Your task to perform on an android device: When is my next meeting? Image 0: 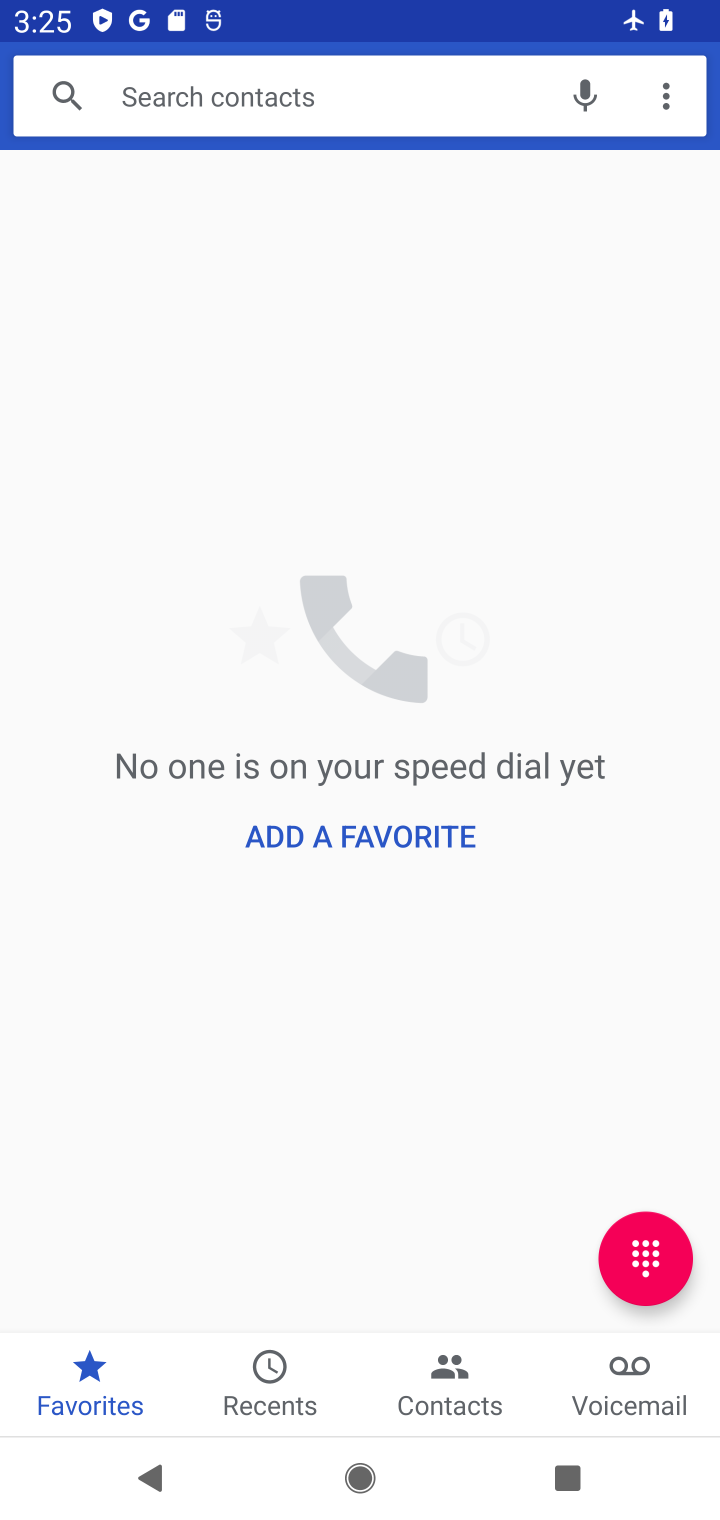
Step 0: press home button
Your task to perform on an android device: When is my next meeting? Image 1: 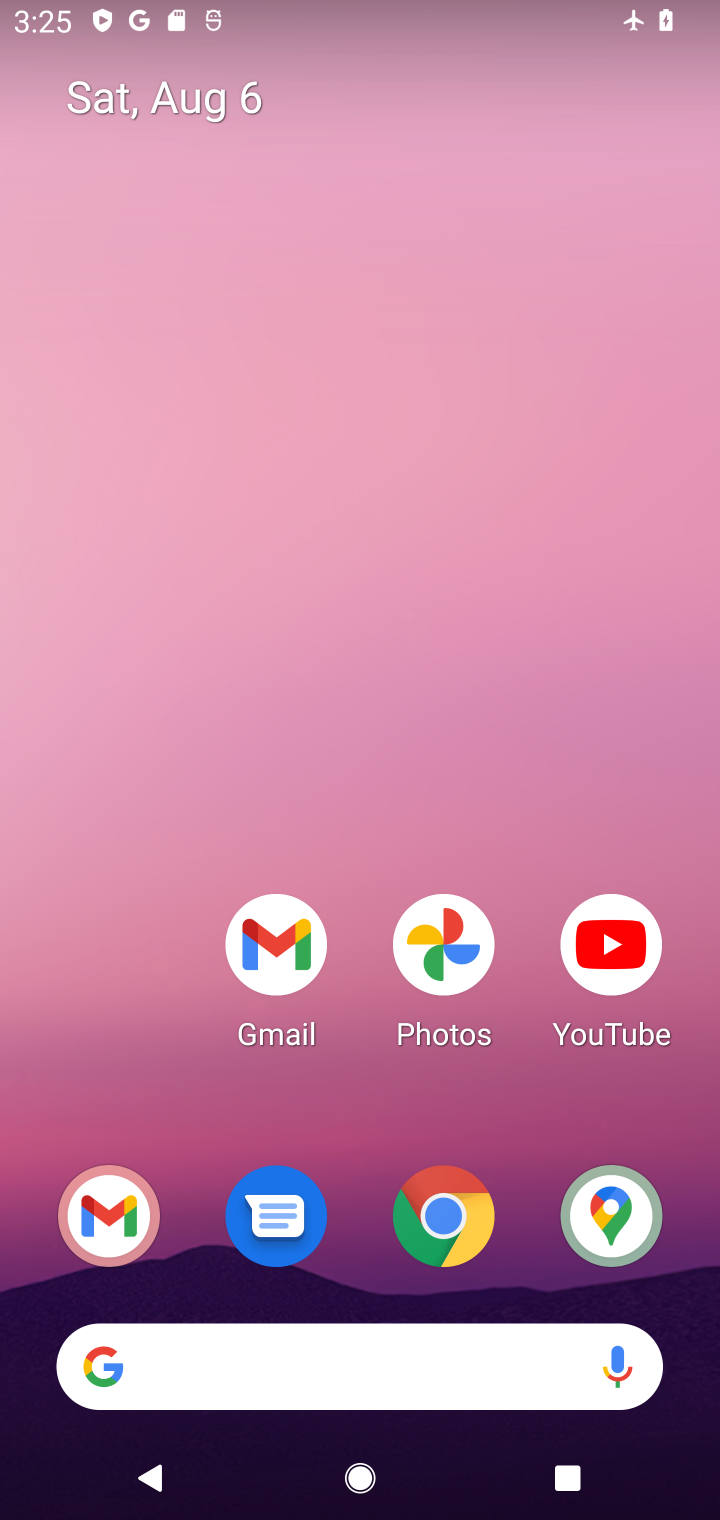
Step 1: press home button
Your task to perform on an android device: When is my next meeting? Image 2: 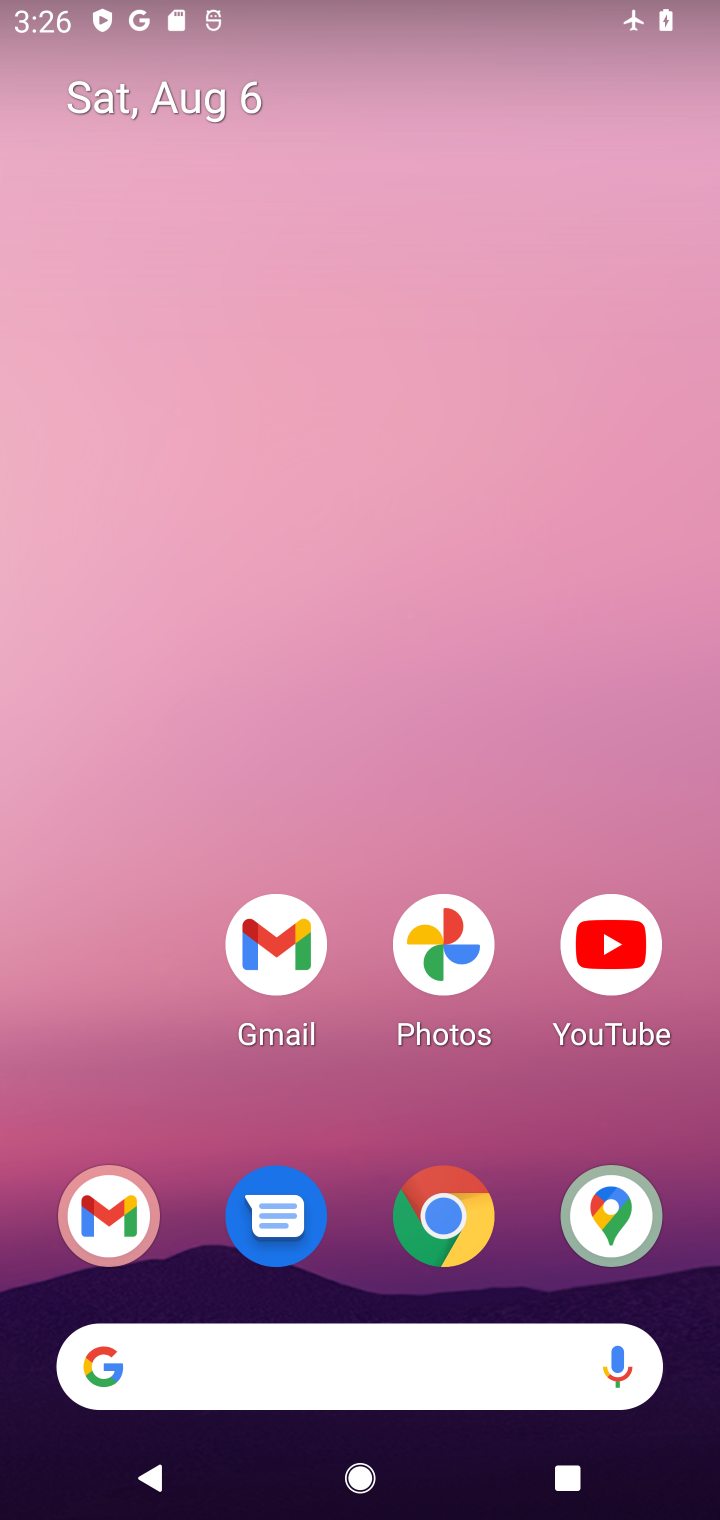
Step 2: drag from (366, 1184) to (379, 640)
Your task to perform on an android device: When is my next meeting? Image 3: 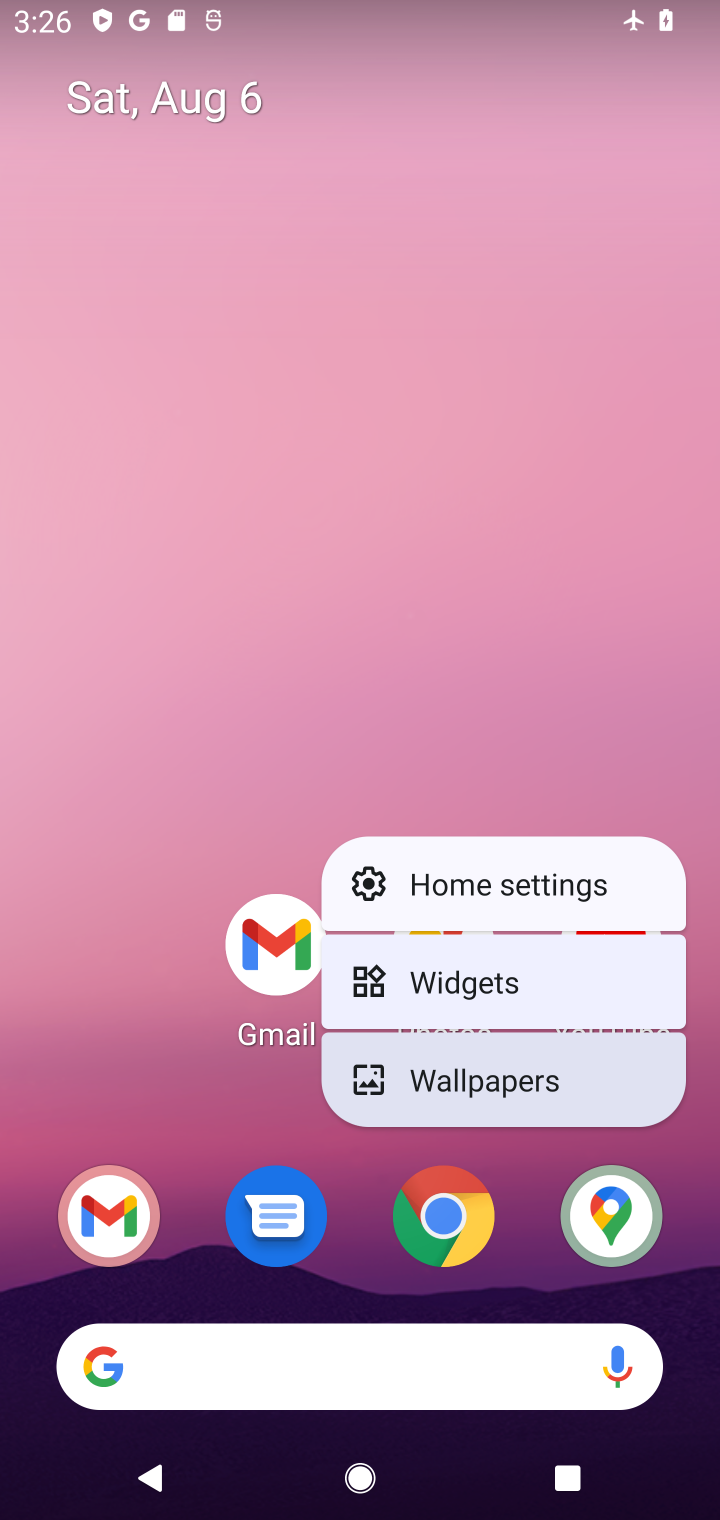
Step 3: drag from (190, 1299) to (341, 290)
Your task to perform on an android device: When is my next meeting? Image 4: 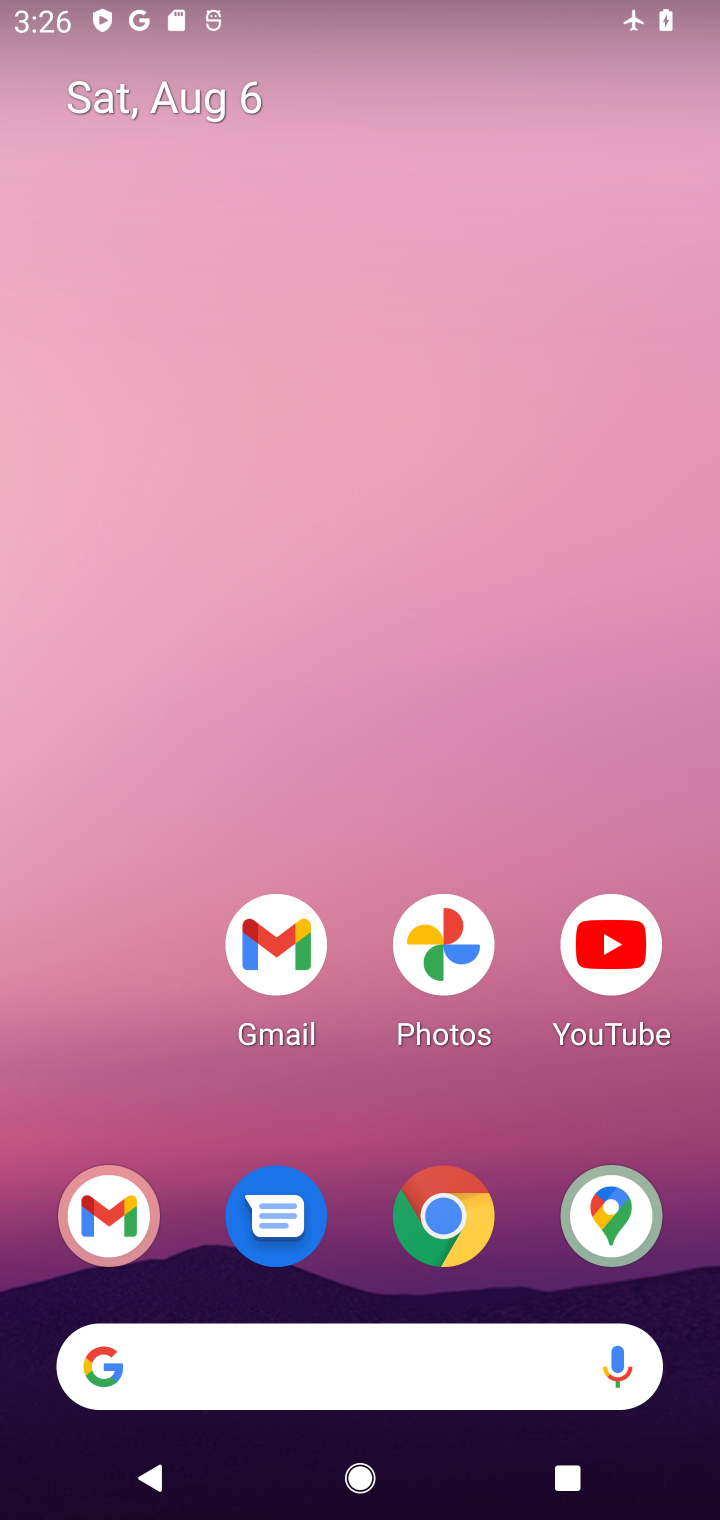
Step 4: drag from (388, 1289) to (380, 534)
Your task to perform on an android device: When is my next meeting? Image 5: 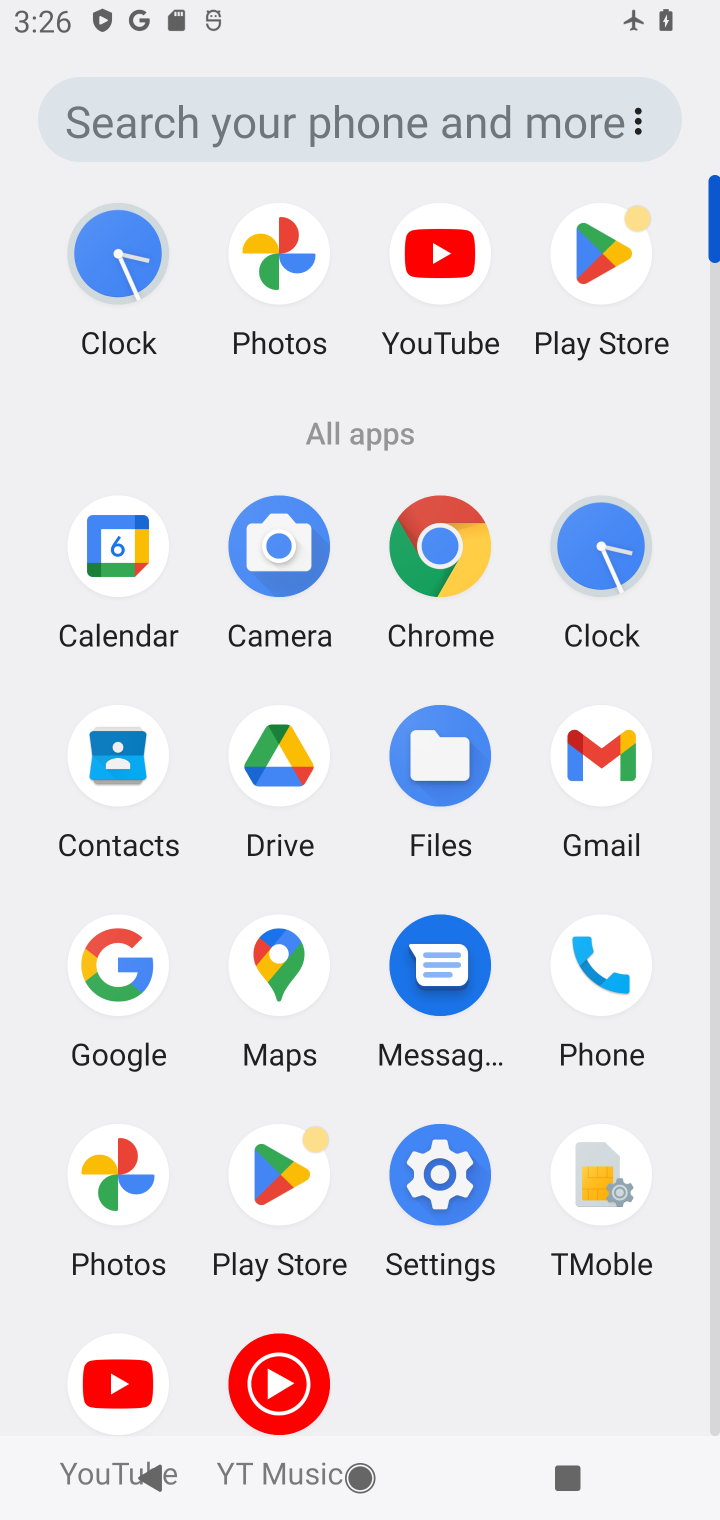
Step 5: click (139, 605)
Your task to perform on an android device: When is my next meeting? Image 6: 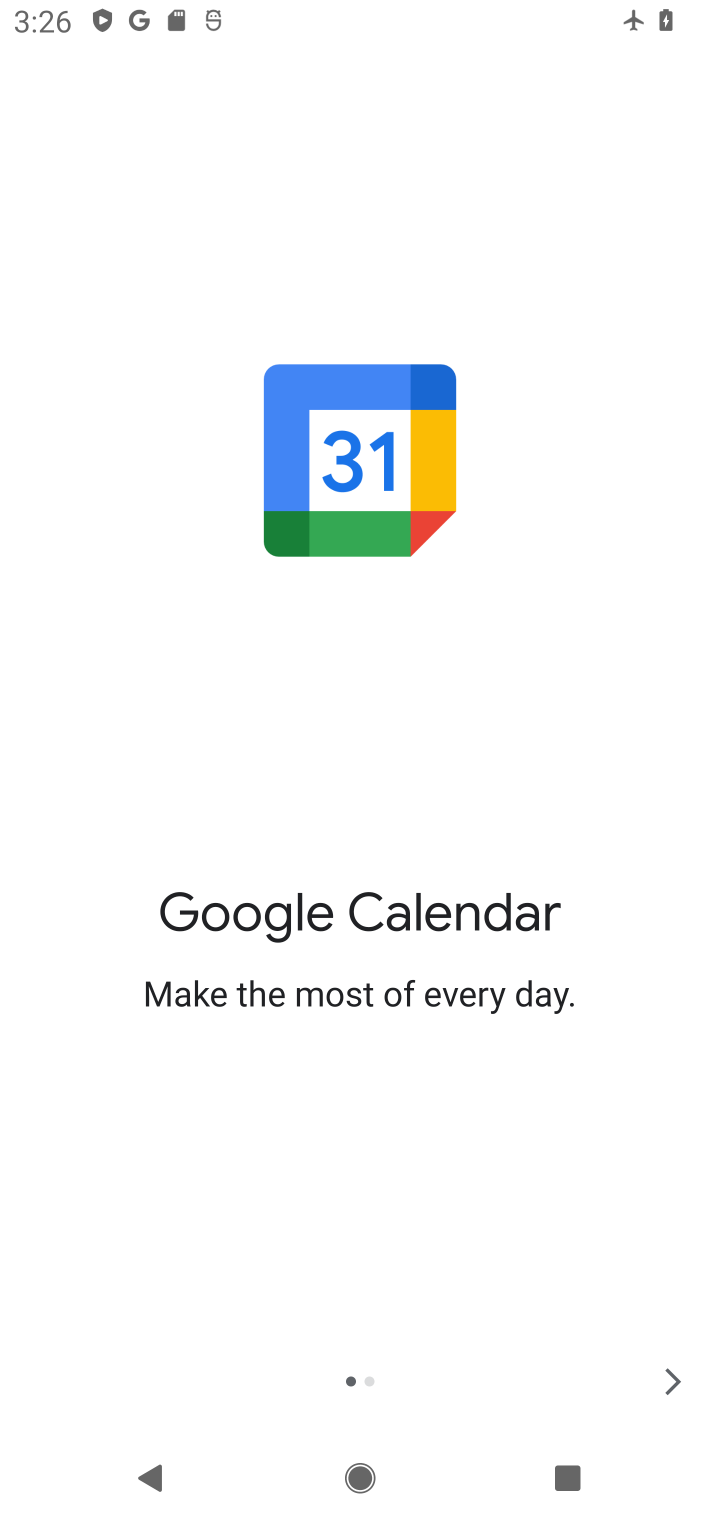
Step 6: click (666, 1401)
Your task to perform on an android device: When is my next meeting? Image 7: 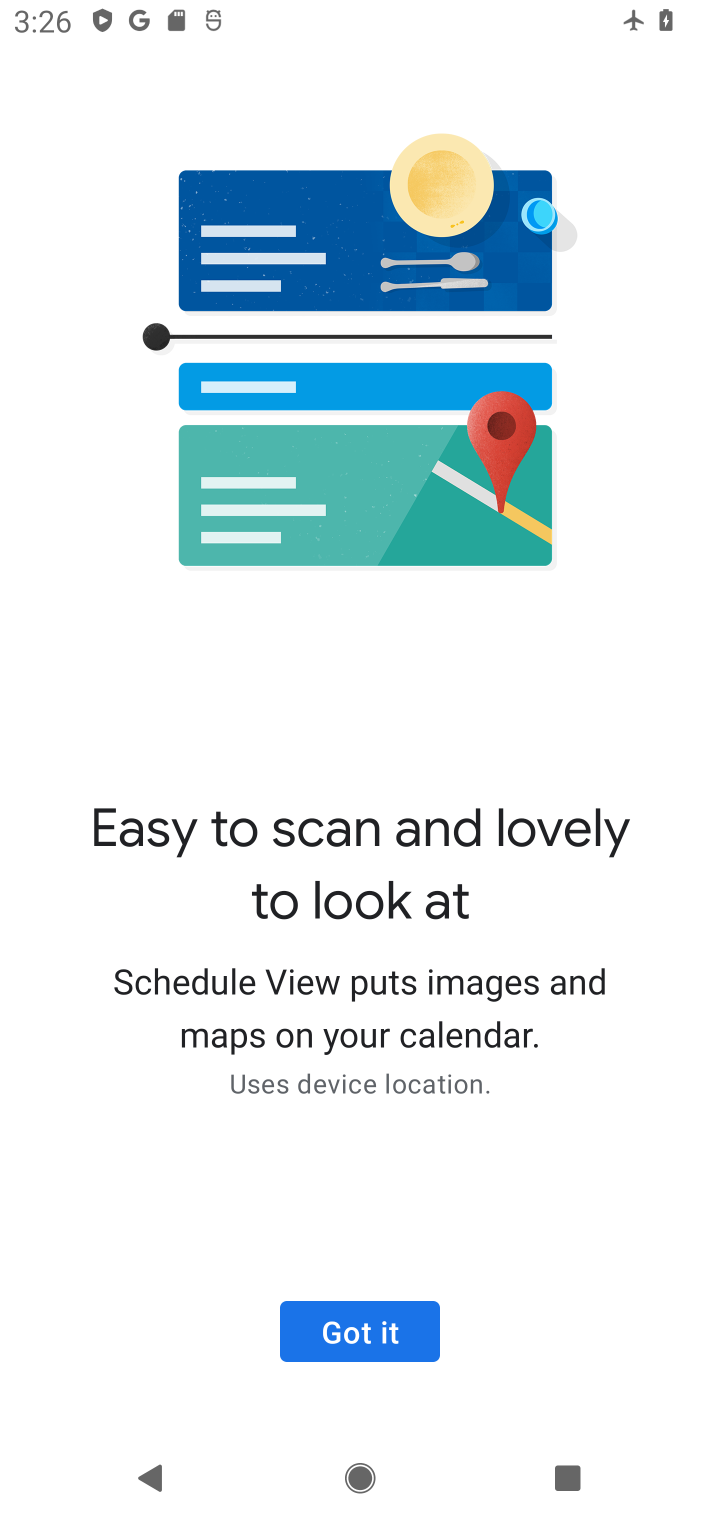
Step 7: click (666, 1401)
Your task to perform on an android device: When is my next meeting? Image 8: 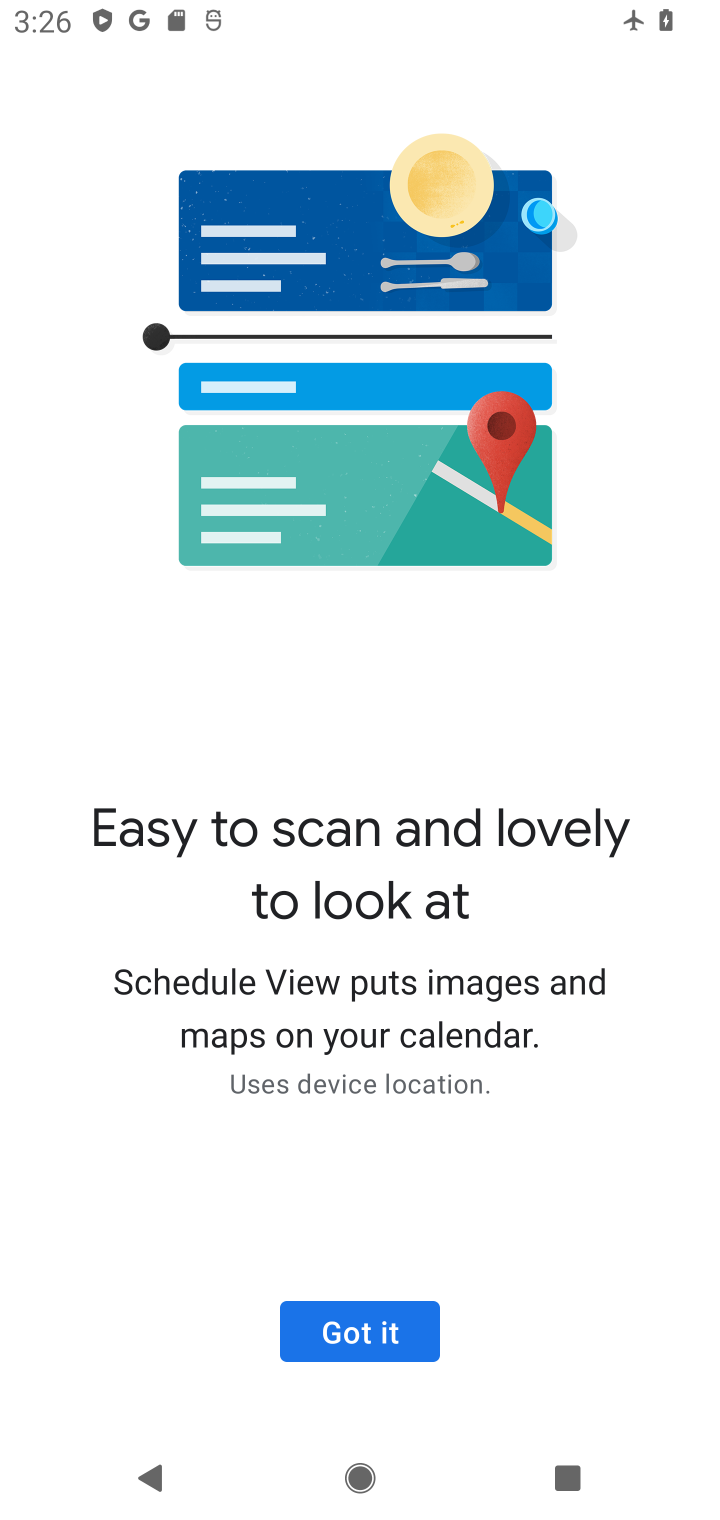
Step 8: click (353, 1314)
Your task to perform on an android device: When is my next meeting? Image 9: 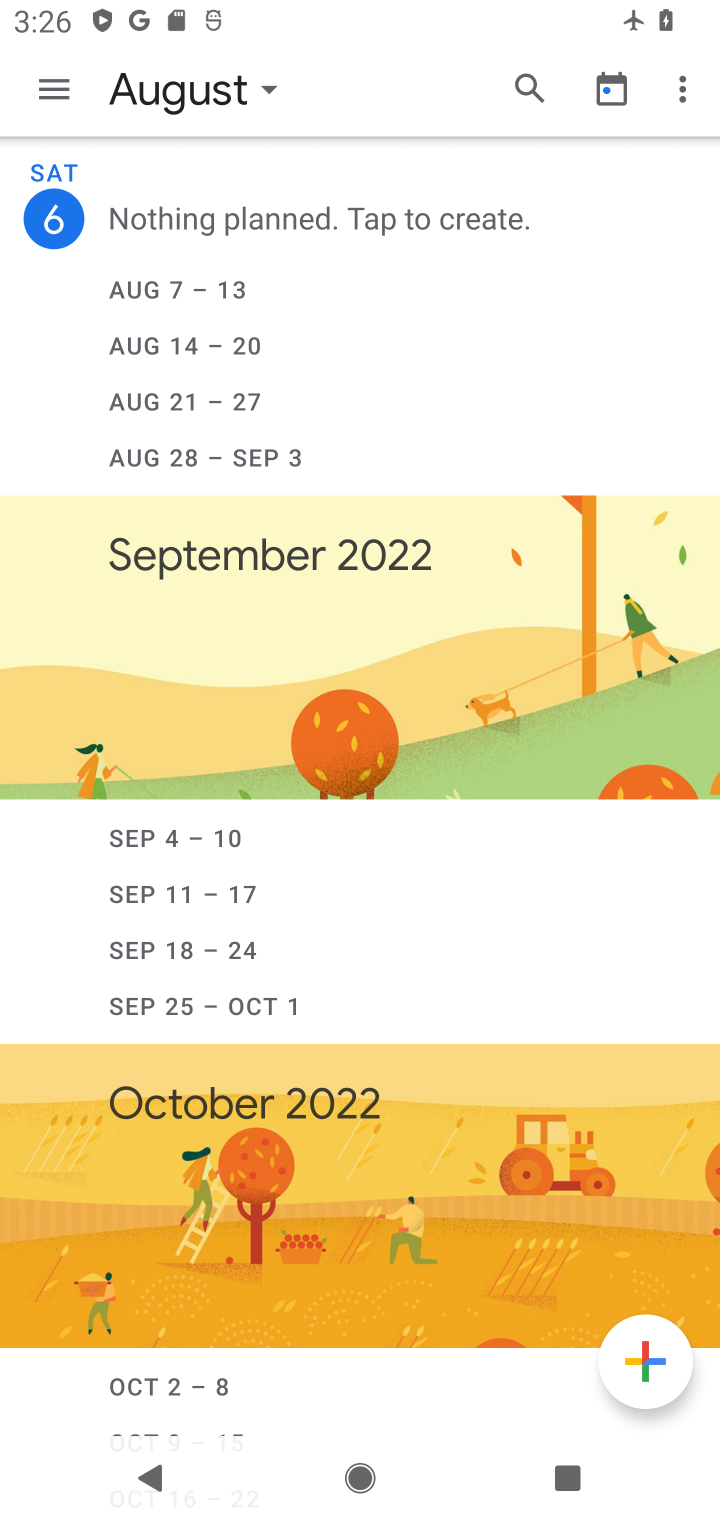
Step 9: task complete